Your task to perform on an android device: Open ESPN.com Image 0: 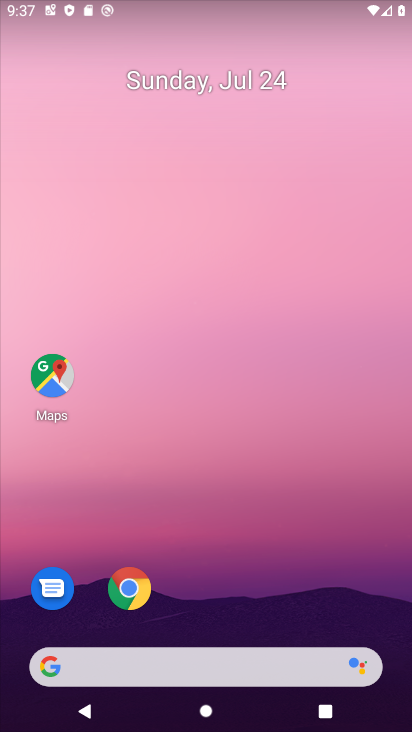
Step 0: click (133, 587)
Your task to perform on an android device: Open ESPN.com Image 1: 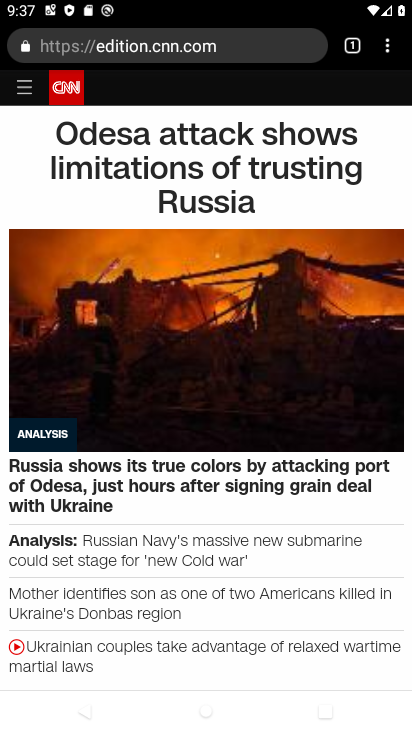
Step 1: click (224, 44)
Your task to perform on an android device: Open ESPN.com Image 2: 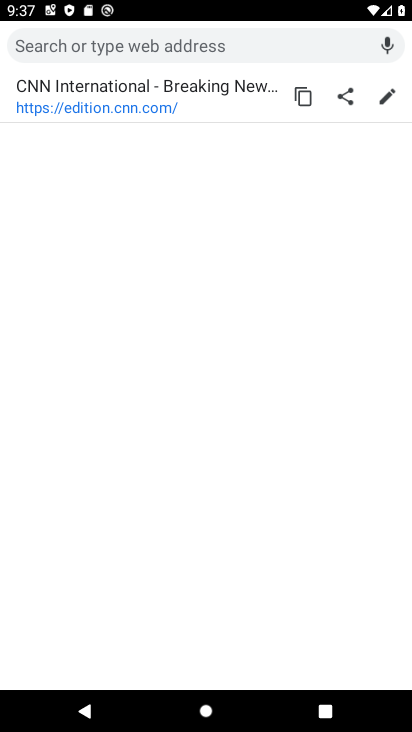
Step 2: type "espn.com"
Your task to perform on an android device: Open ESPN.com Image 3: 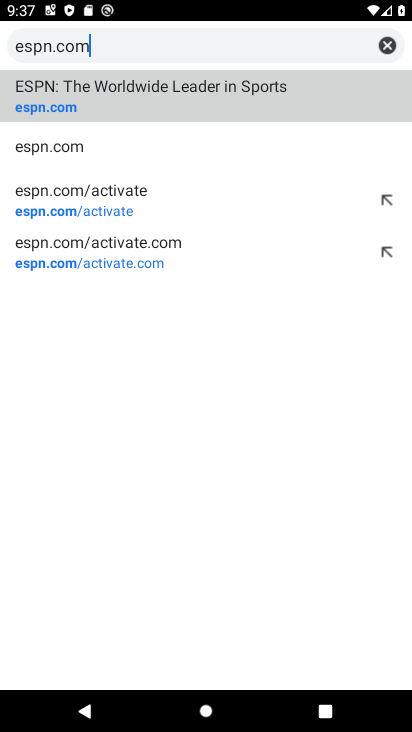
Step 3: click (60, 101)
Your task to perform on an android device: Open ESPN.com Image 4: 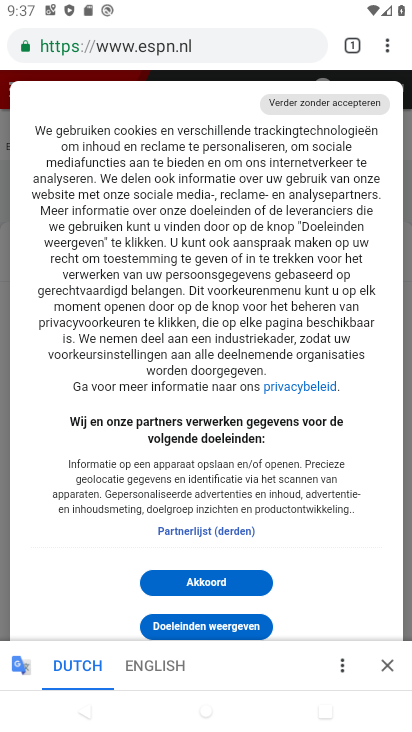
Step 4: task complete